Your task to perform on an android device: find which apps use the phone's location Image 0: 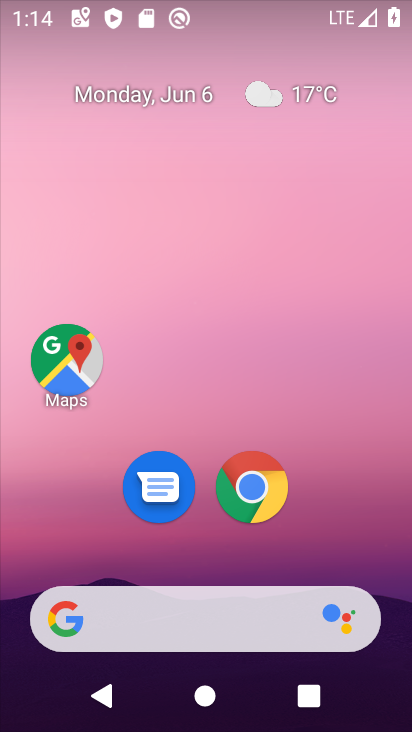
Step 0: drag from (216, 557) to (260, 0)
Your task to perform on an android device: find which apps use the phone's location Image 1: 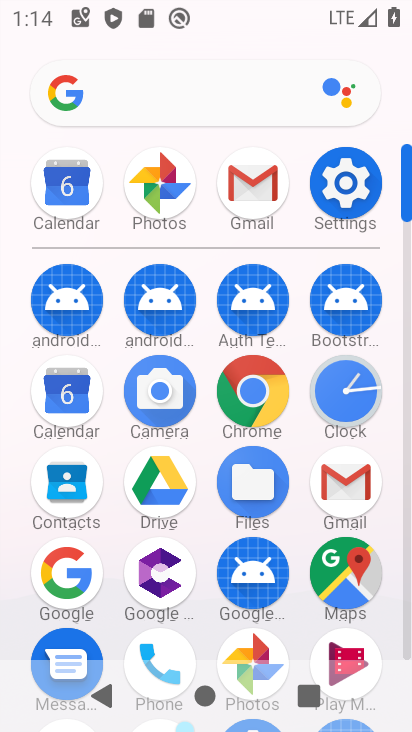
Step 1: click (358, 195)
Your task to perform on an android device: find which apps use the phone's location Image 2: 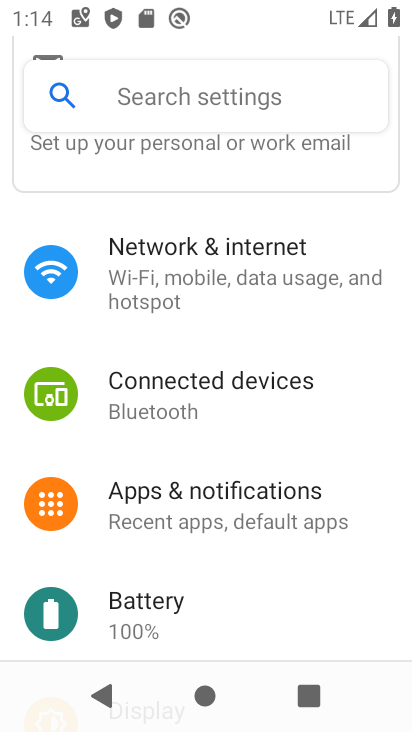
Step 2: drag from (185, 603) to (296, 71)
Your task to perform on an android device: find which apps use the phone's location Image 3: 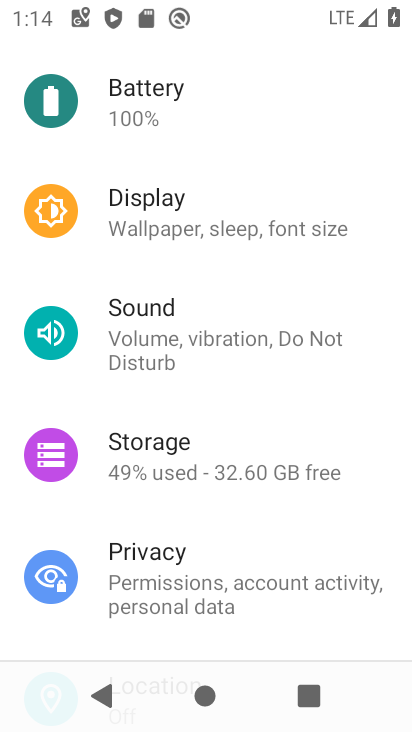
Step 3: drag from (215, 539) to (295, 100)
Your task to perform on an android device: find which apps use the phone's location Image 4: 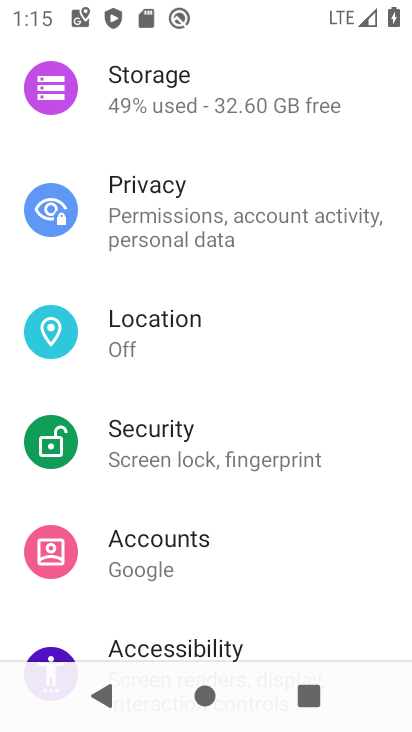
Step 4: click (142, 340)
Your task to perform on an android device: find which apps use the phone's location Image 5: 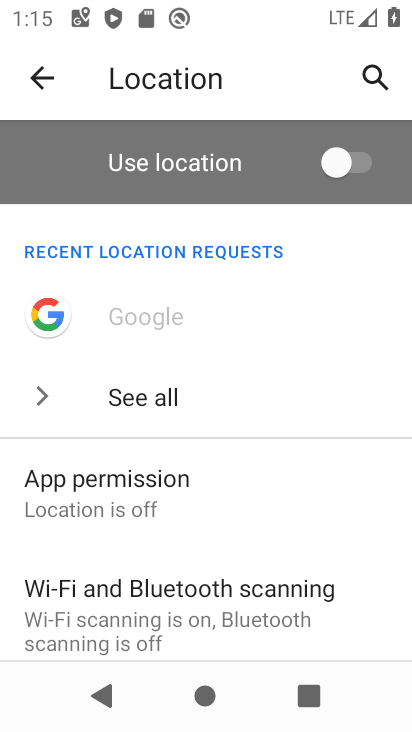
Step 5: drag from (234, 630) to (269, 132)
Your task to perform on an android device: find which apps use the phone's location Image 6: 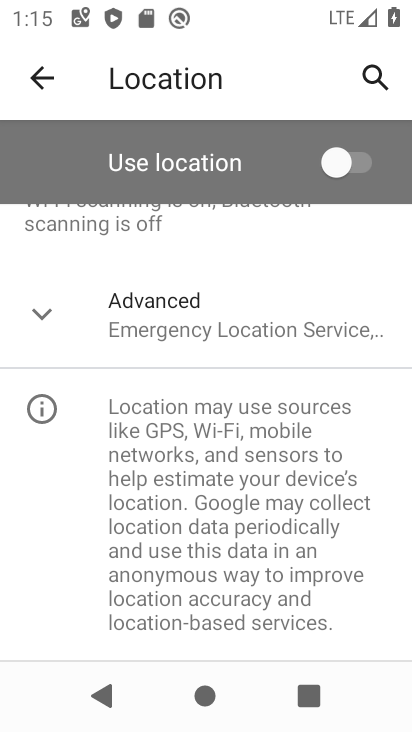
Step 6: drag from (212, 319) to (178, 723)
Your task to perform on an android device: find which apps use the phone's location Image 7: 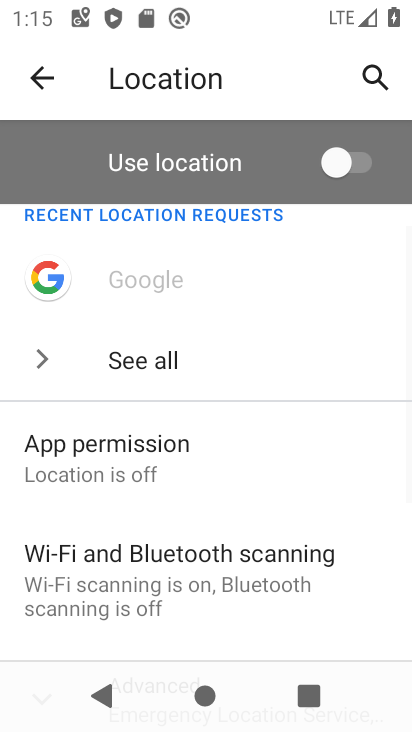
Step 7: click (100, 476)
Your task to perform on an android device: find which apps use the phone's location Image 8: 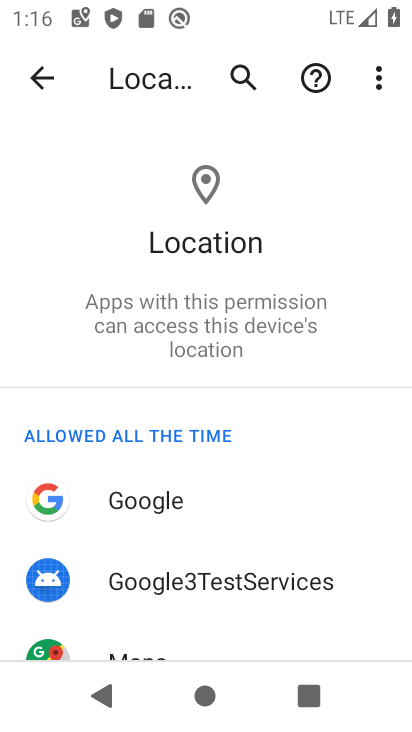
Step 8: task complete